Your task to perform on an android device: turn off priority inbox in the gmail app Image 0: 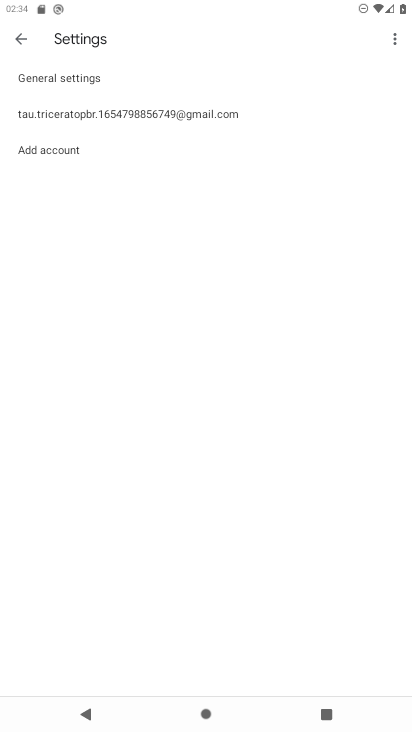
Step 0: click (184, 116)
Your task to perform on an android device: turn off priority inbox in the gmail app Image 1: 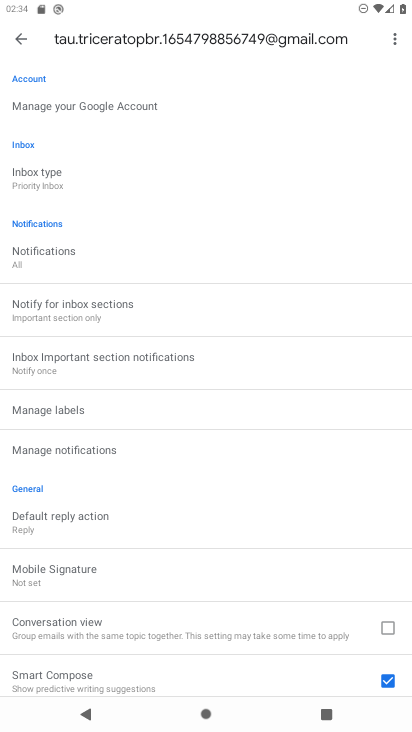
Step 1: click (83, 177)
Your task to perform on an android device: turn off priority inbox in the gmail app Image 2: 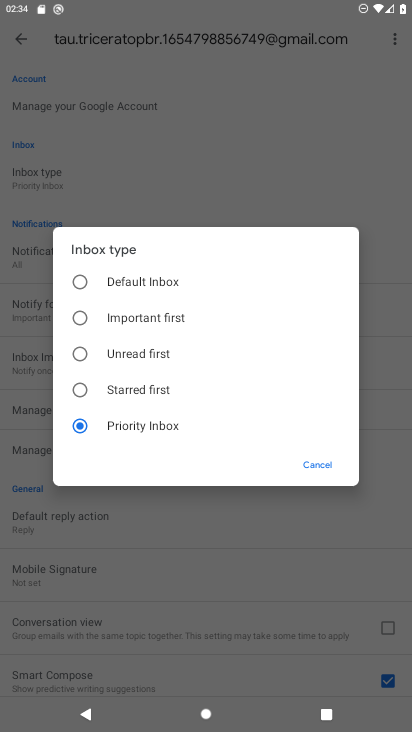
Step 2: click (118, 285)
Your task to perform on an android device: turn off priority inbox in the gmail app Image 3: 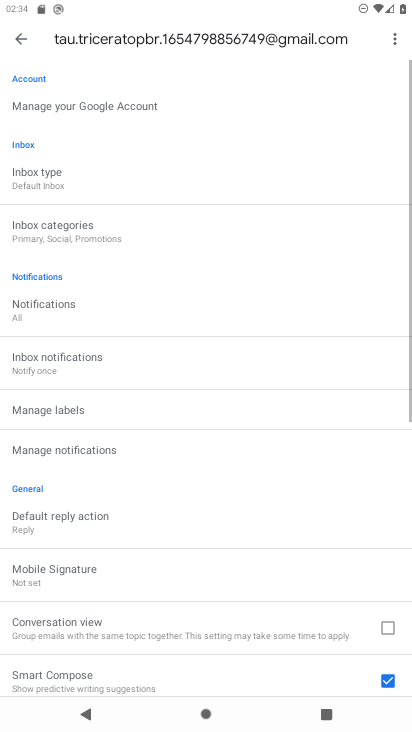
Step 3: task complete